Your task to perform on an android device: choose inbox layout in the gmail app Image 0: 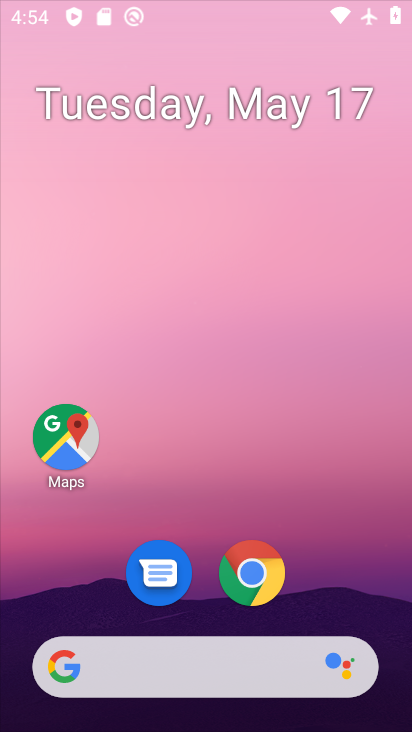
Step 0: drag from (281, 648) to (116, 92)
Your task to perform on an android device: choose inbox layout in the gmail app Image 1: 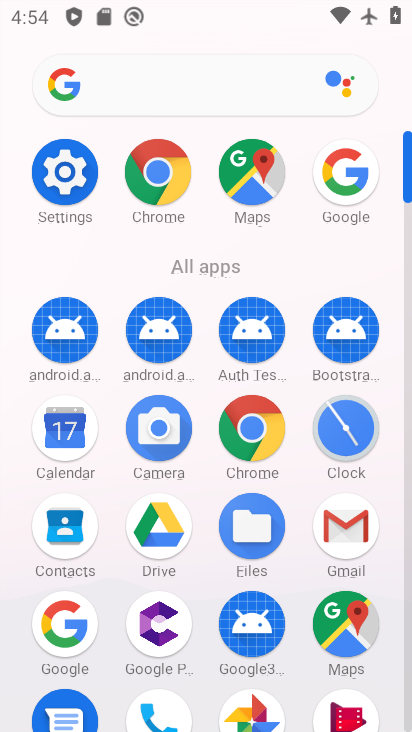
Step 1: click (335, 517)
Your task to perform on an android device: choose inbox layout in the gmail app Image 2: 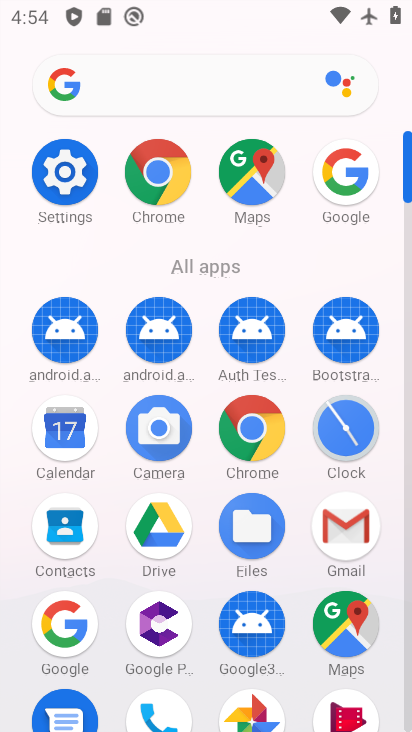
Step 2: click (335, 517)
Your task to perform on an android device: choose inbox layout in the gmail app Image 3: 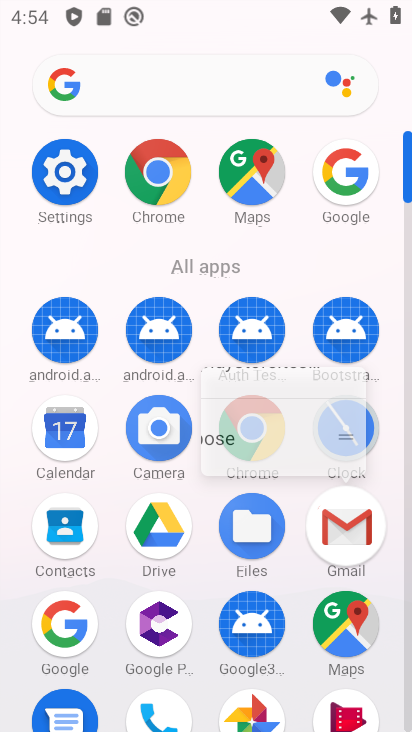
Step 3: click (335, 517)
Your task to perform on an android device: choose inbox layout in the gmail app Image 4: 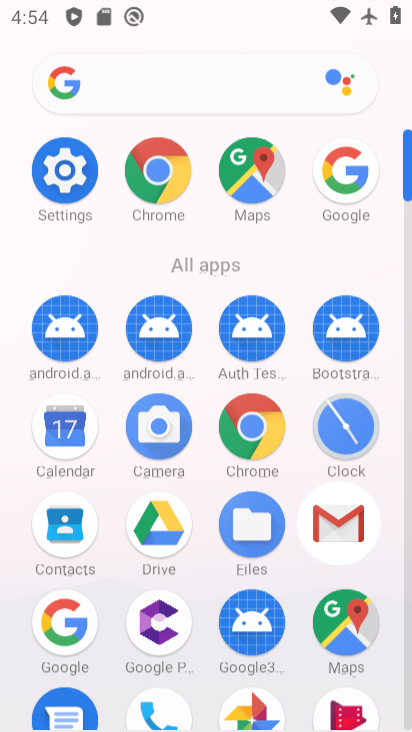
Step 4: click (335, 517)
Your task to perform on an android device: choose inbox layout in the gmail app Image 5: 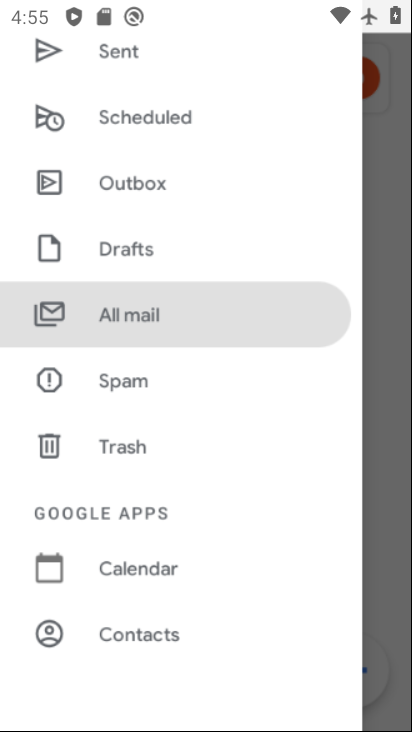
Step 5: click (335, 517)
Your task to perform on an android device: choose inbox layout in the gmail app Image 6: 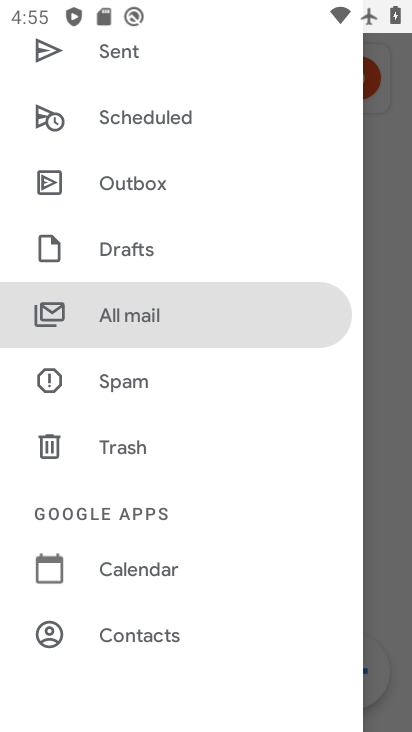
Step 6: click (121, 310)
Your task to perform on an android device: choose inbox layout in the gmail app Image 7: 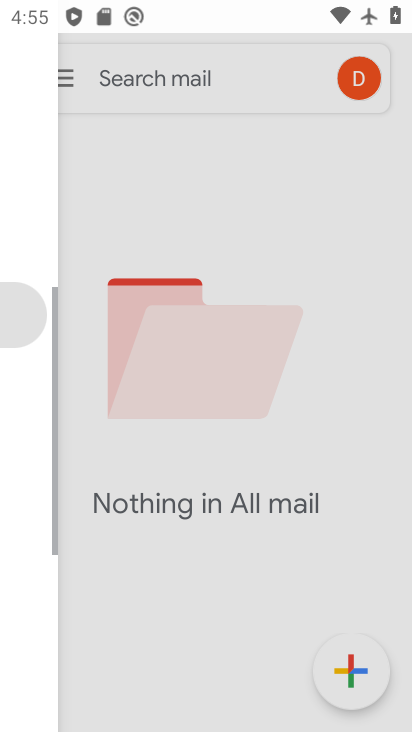
Step 7: click (121, 310)
Your task to perform on an android device: choose inbox layout in the gmail app Image 8: 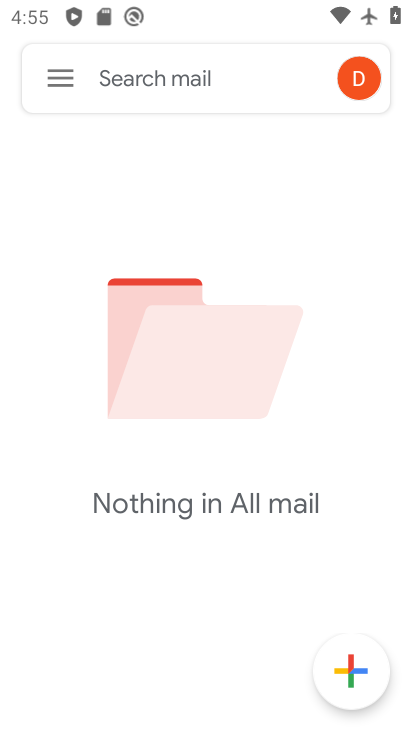
Step 8: click (121, 310)
Your task to perform on an android device: choose inbox layout in the gmail app Image 9: 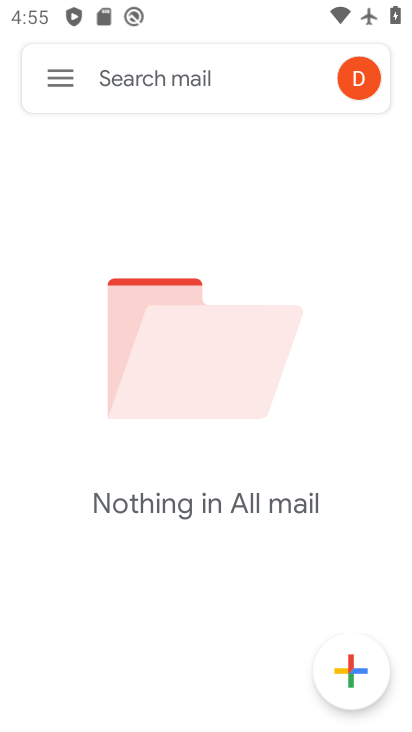
Step 9: click (124, 310)
Your task to perform on an android device: choose inbox layout in the gmail app Image 10: 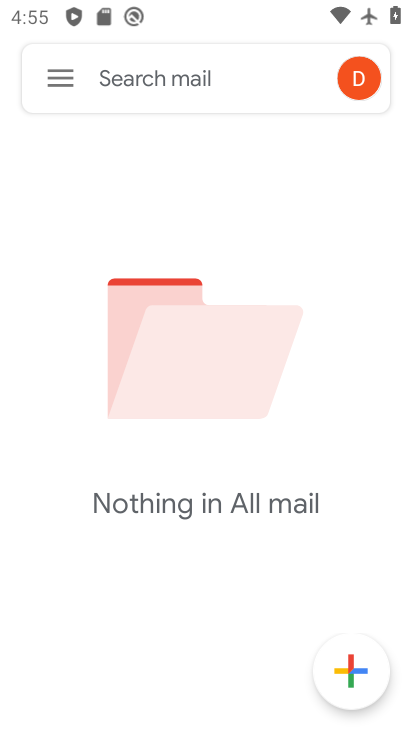
Step 10: task complete